Your task to perform on an android device: Open notification settings Image 0: 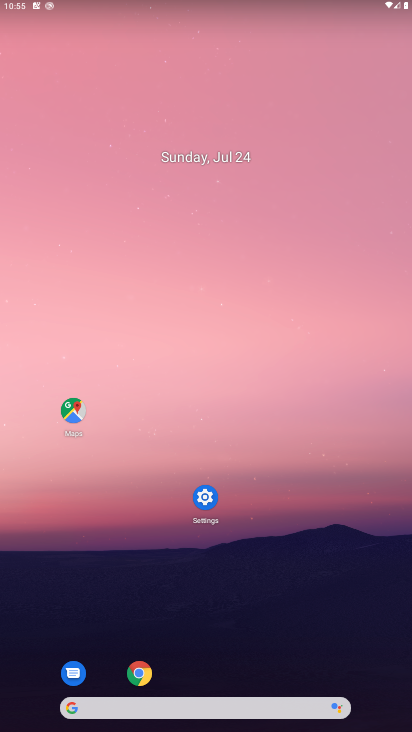
Step 0: click (205, 499)
Your task to perform on an android device: Open notification settings Image 1: 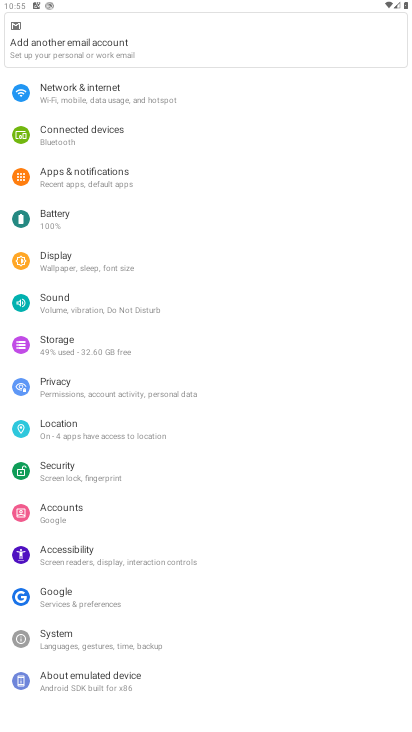
Step 1: click (144, 172)
Your task to perform on an android device: Open notification settings Image 2: 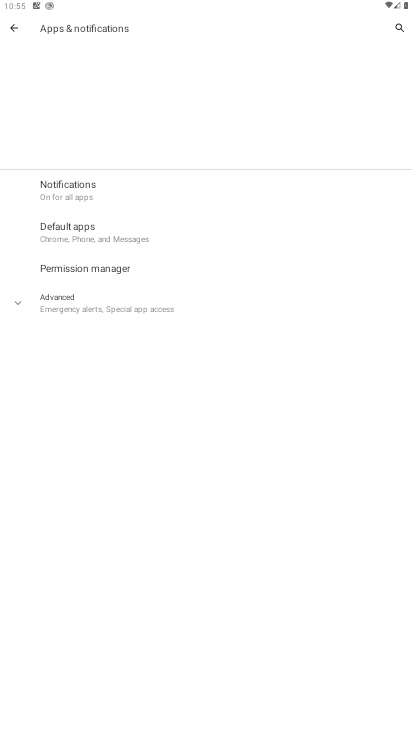
Step 2: task complete